Your task to perform on an android device: remove spam from my inbox in the gmail app Image 0: 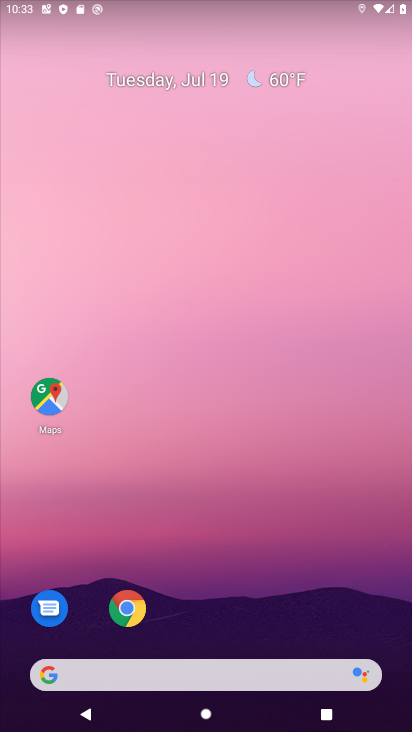
Step 0: drag from (207, 652) to (258, 26)
Your task to perform on an android device: remove spam from my inbox in the gmail app Image 1: 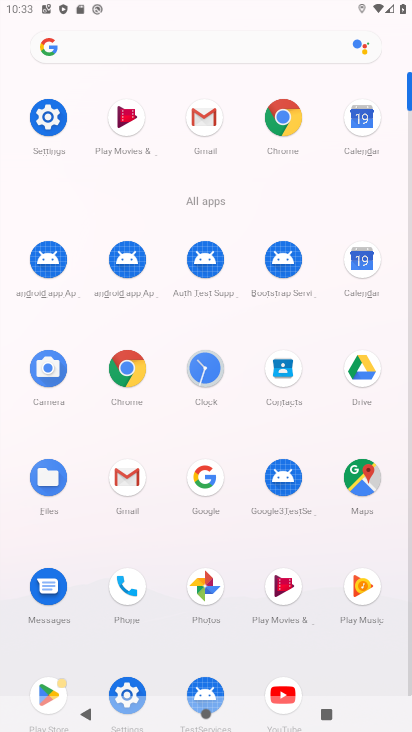
Step 1: click (138, 486)
Your task to perform on an android device: remove spam from my inbox in the gmail app Image 2: 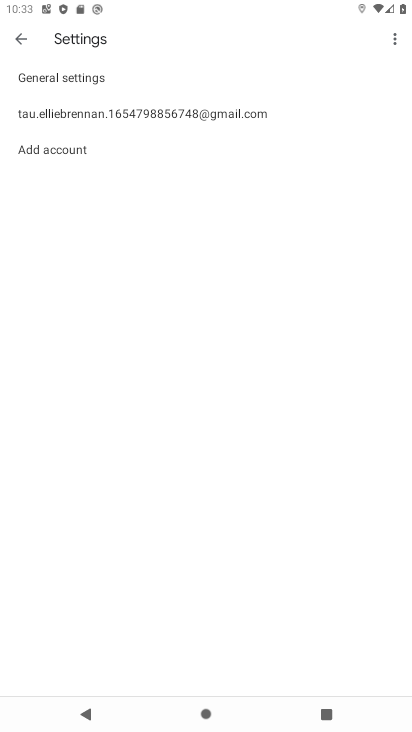
Step 2: click (23, 39)
Your task to perform on an android device: remove spam from my inbox in the gmail app Image 3: 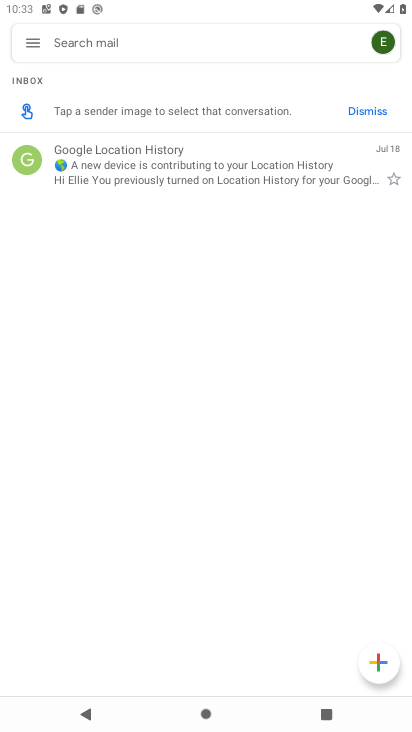
Step 3: click (32, 53)
Your task to perform on an android device: remove spam from my inbox in the gmail app Image 4: 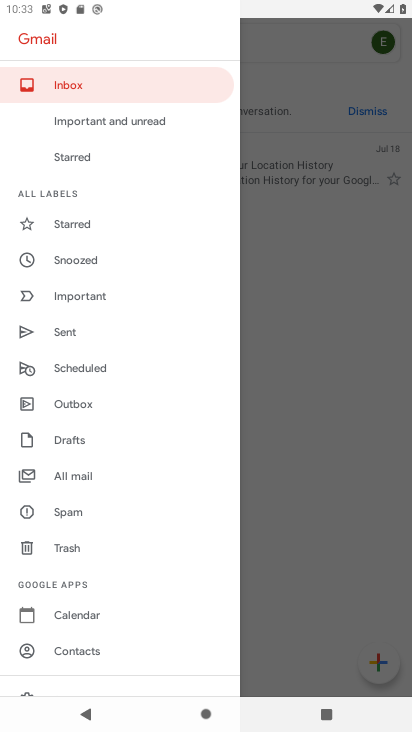
Step 4: click (72, 499)
Your task to perform on an android device: remove spam from my inbox in the gmail app Image 5: 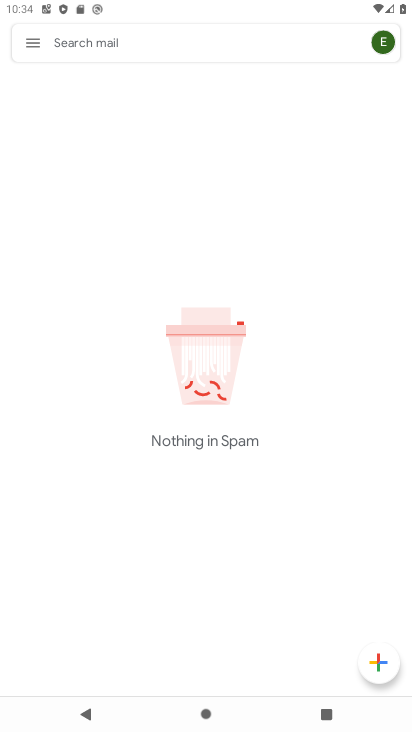
Step 5: task complete